Your task to perform on an android device: Show me productivity apps on the Play Store Image 0: 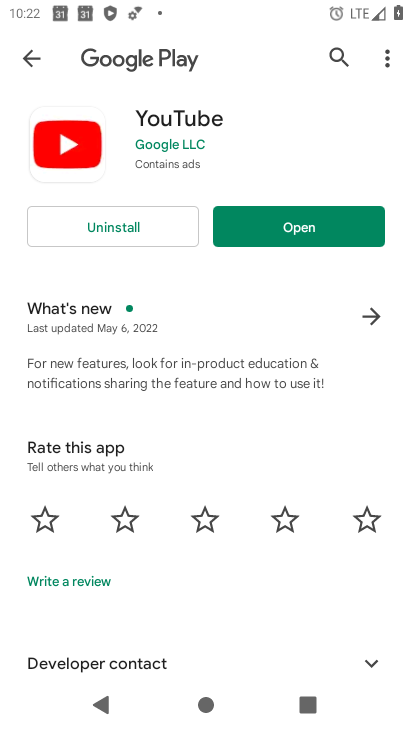
Step 0: click (16, 53)
Your task to perform on an android device: Show me productivity apps on the Play Store Image 1: 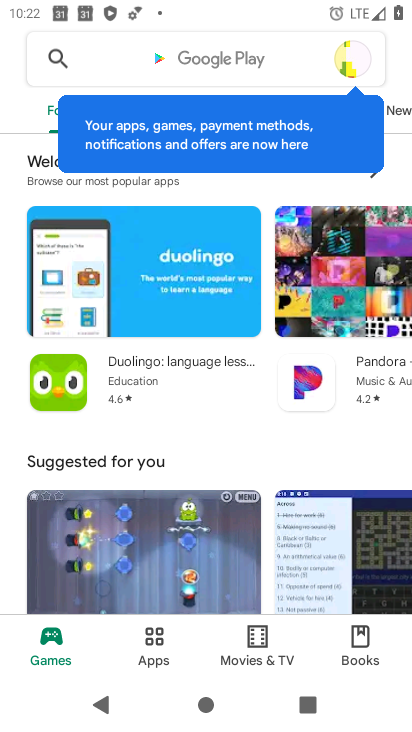
Step 1: click (151, 661)
Your task to perform on an android device: Show me productivity apps on the Play Store Image 2: 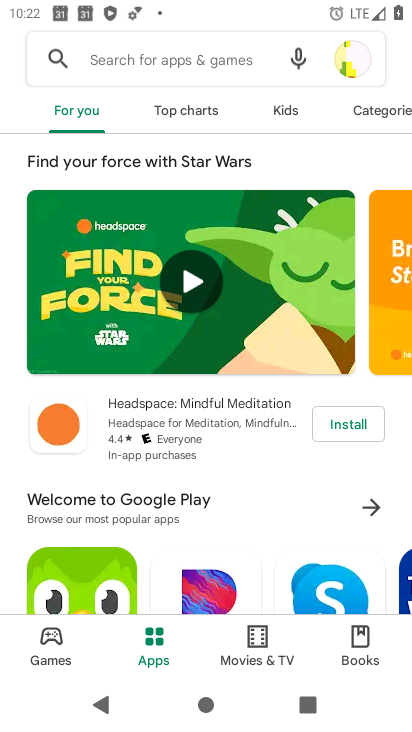
Step 2: click (371, 108)
Your task to perform on an android device: Show me productivity apps on the Play Store Image 3: 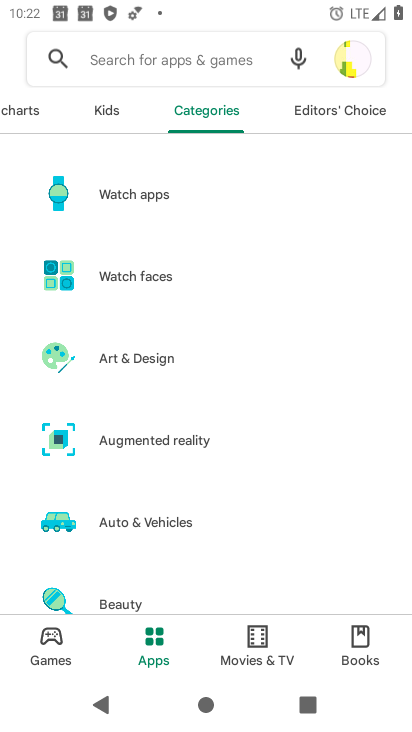
Step 3: drag from (169, 519) to (162, 23)
Your task to perform on an android device: Show me productivity apps on the Play Store Image 4: 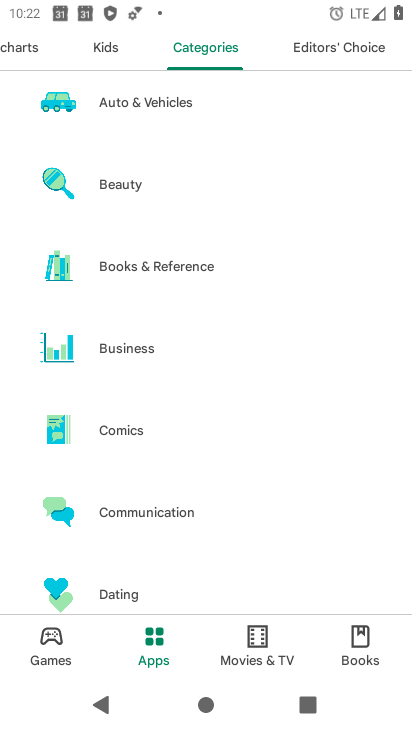
Step 4: drag from (162, 536) to (206, 57)
Your task to perform on an android device: Show me productivity apps on the Play Store Image 5: 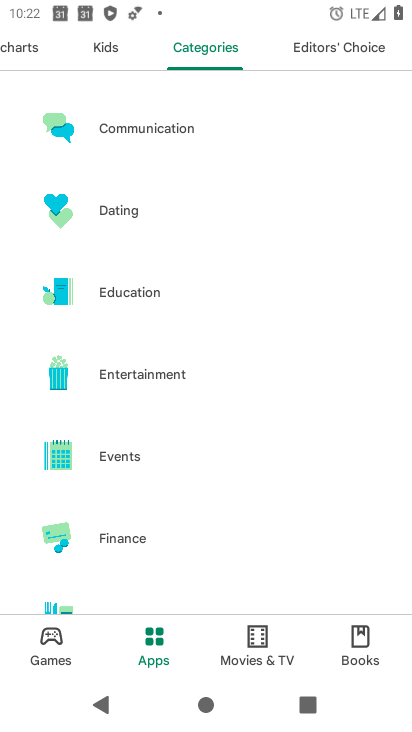
Step 5: drag from (209, 472) to (231, 10)
Your task to perform on an android device: Show me productivity apps on the Play Store Image 6: 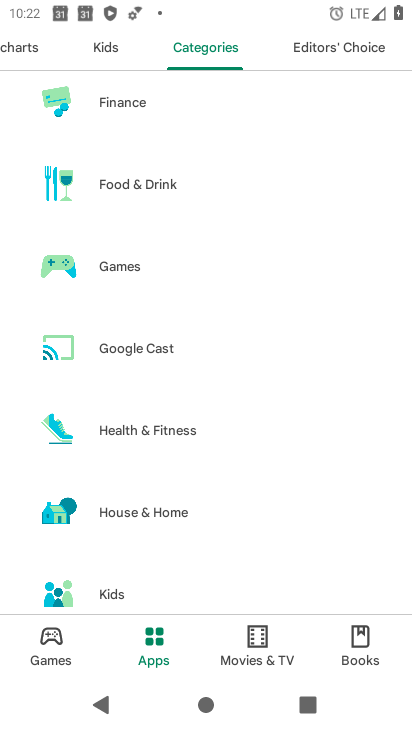
Step 6: drag from (173, 508) to (182, 72)
Your task to perform on an android device: Show me productivity apps on the Play Store Image 7: 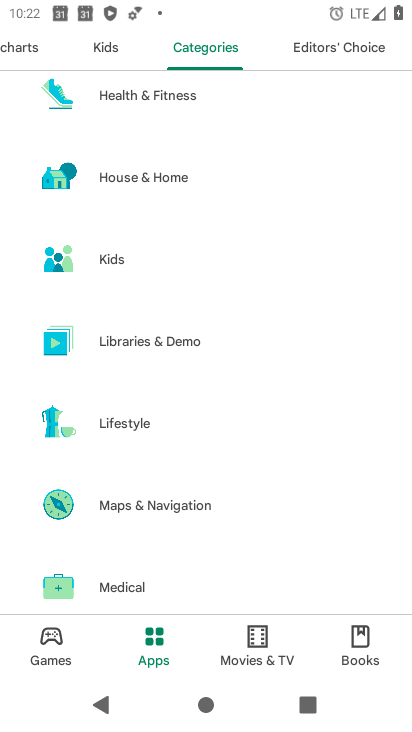
Step 7: drag from (173, 531) to (213, 120)
Your task to perform on an android device: Show me productivity apps on the Play Store Image 8: 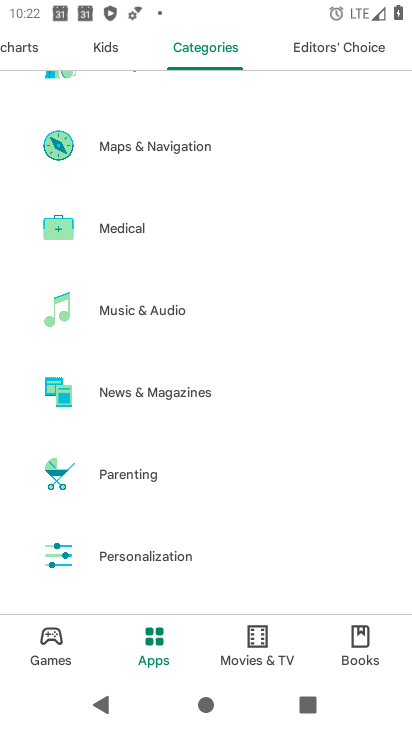
Step 8: drag from (179, 503) to (193, 163)
Your task to perform on an android device: Show me productivity apps on the Play Store Image 9: 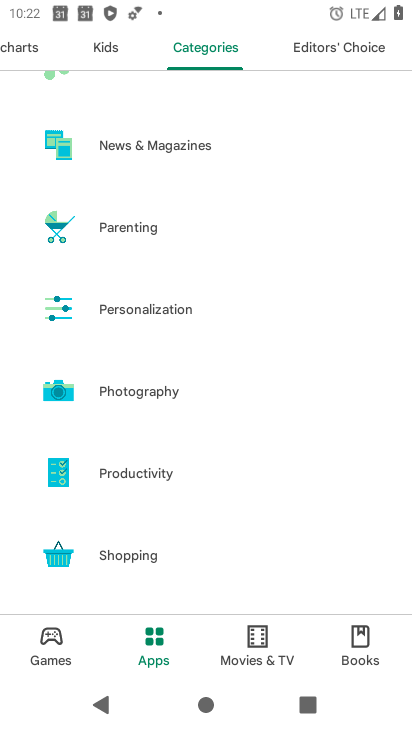
Step 9: click (112, 472)
Your task to perform on an android device: Show me productivity apps on the Play Store Image 10: 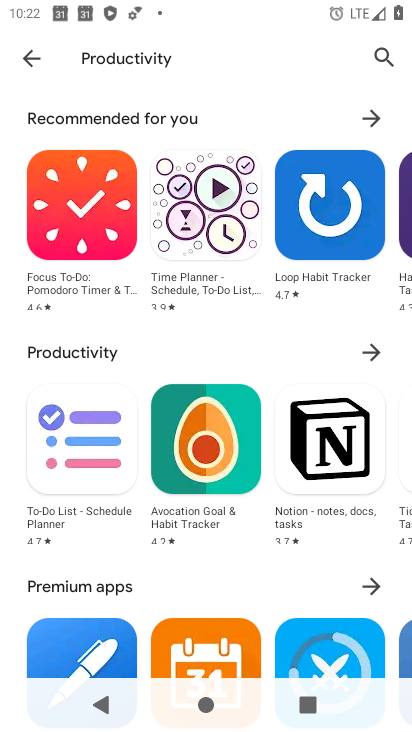
Step 10: task complete